Your task to perform on an android device: check battery use Image 0: 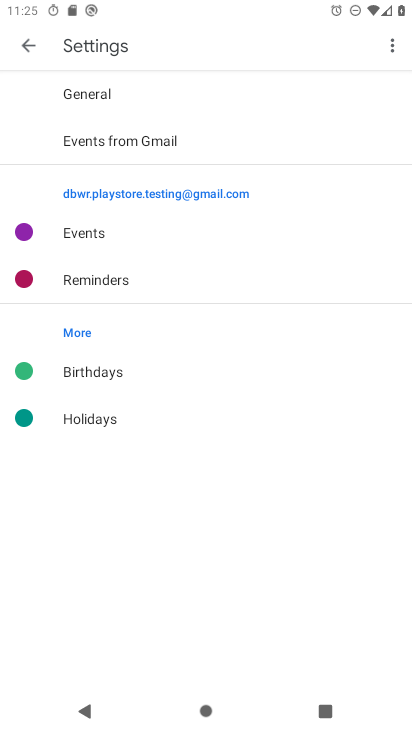
Step 0: press back button
Your task to perform on an android device: check battery use Image 1: 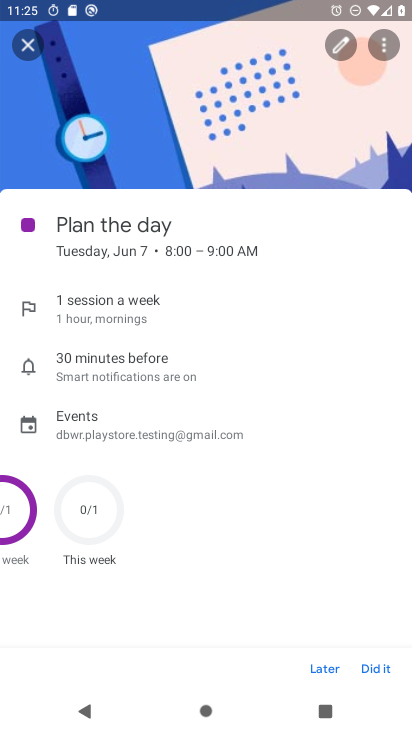
Step 1: press back button
Your task to perform on an android device: check battery use Image 2: 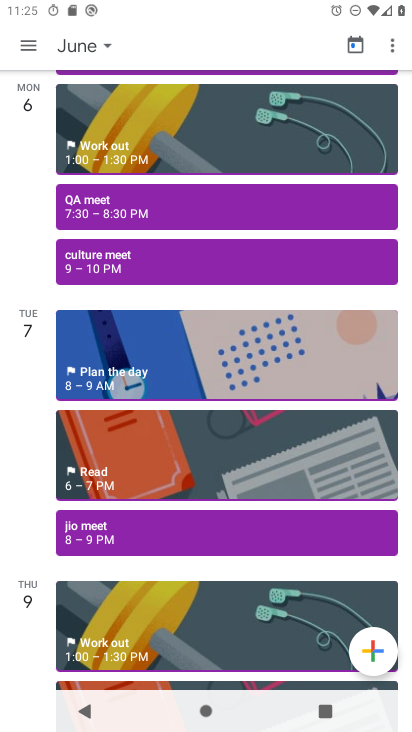
Step 2: press back button
Your task to perform on an android device: check battery use Image 3: 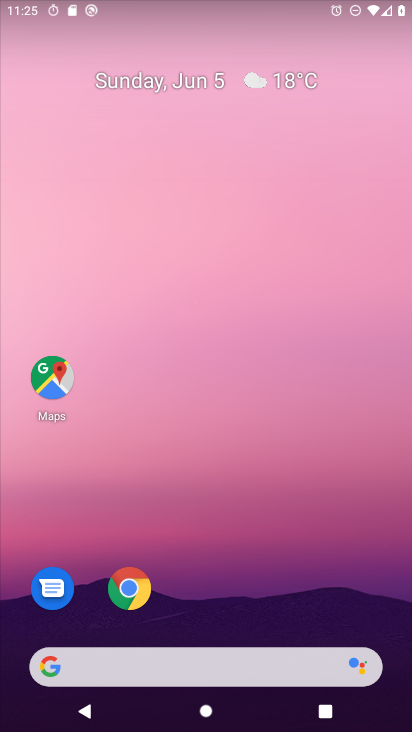
Step 3: drag from (349, 569) to (343, 151)
Your task to perform on an android device: check battery use Image 4: 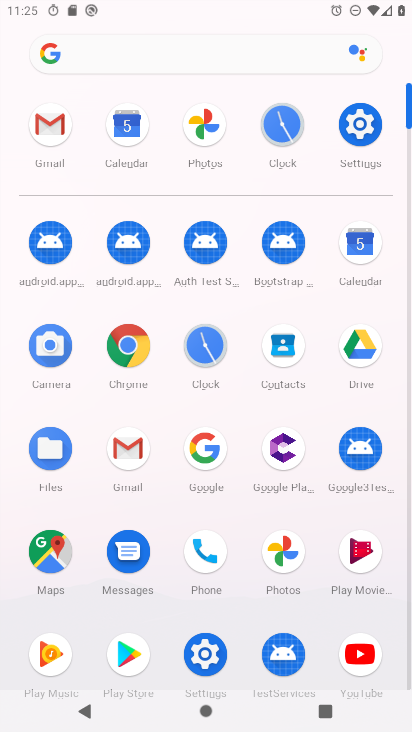
Step 4: click (362, 132)
Your task to perform on an android device: check battery use Image 5: 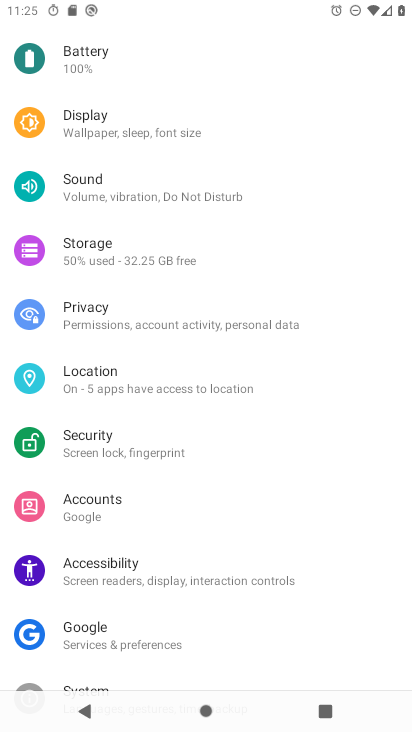
Step 5: drag from (344, 251) to (353, 370)
Your task to perform on an android device: check battery use Image 6: 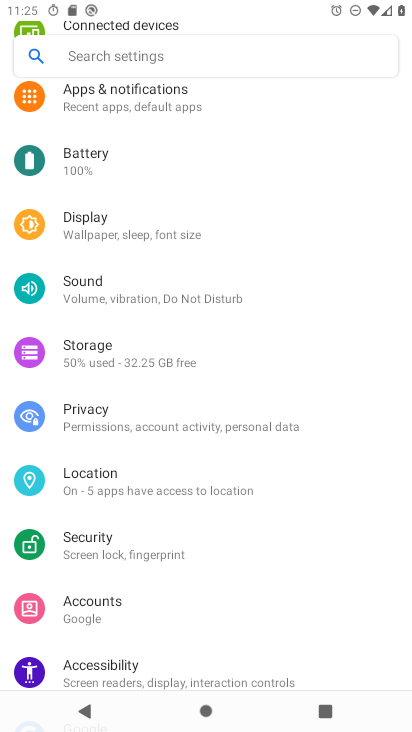
Step 6: drag from (350, 241) to (350, 354)
Your task to perform on an android device: check battery use Image 7: 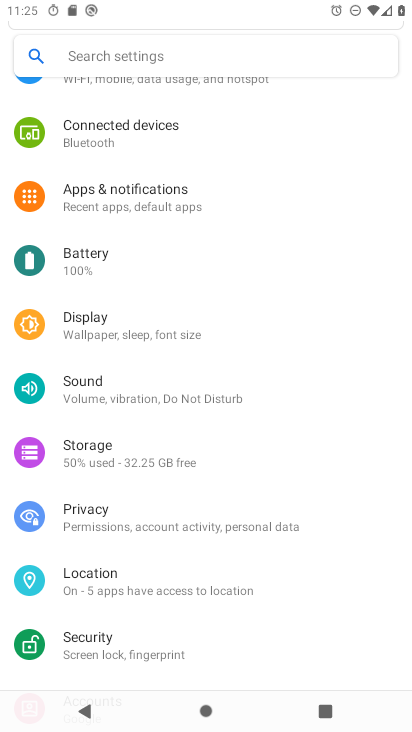
Step 7: drag from (332, 187) to (330, 354)
Your task to perform on an android device: check battery use Image 8: 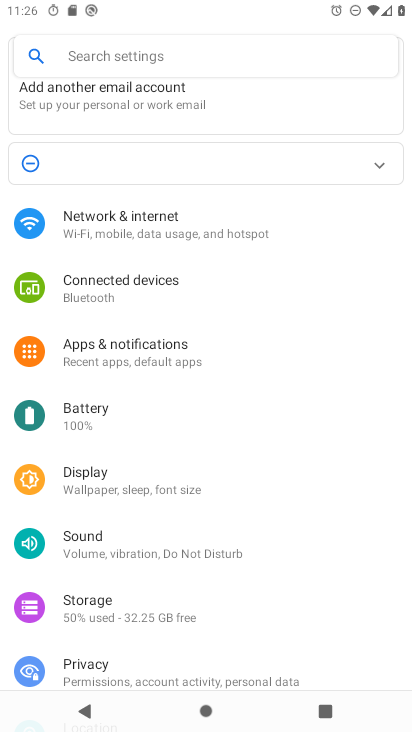
Step 8: click (154, 441)
Your task to perform on an android device: check battery use Image 9: 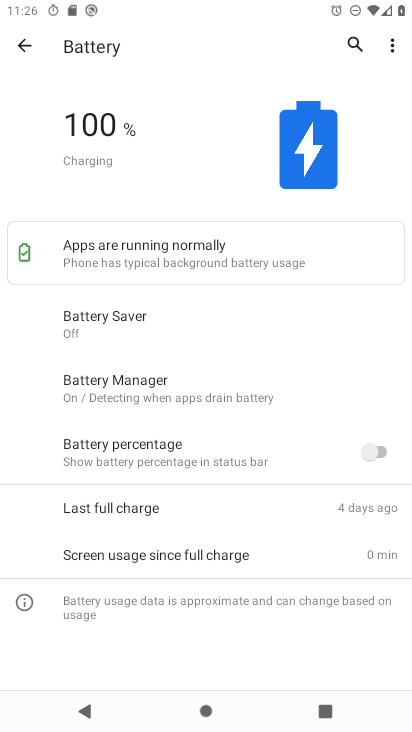
Step 9: click (390, 52)
Your task to perform on an android device: check battery use Image 10: 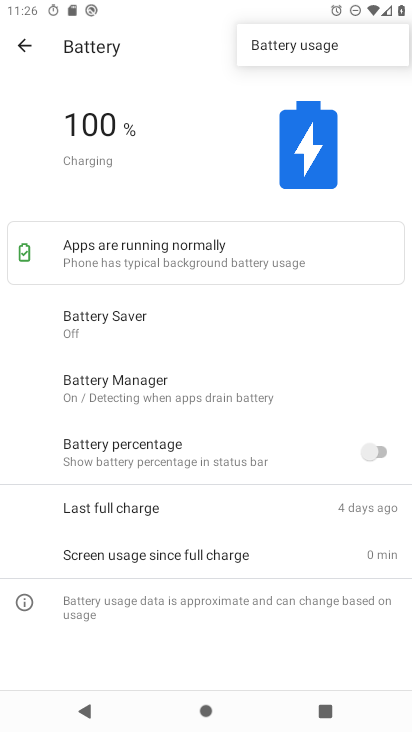
Step 10: click (300, 53)
Your task to perform on an android device: check battery use Image 11: 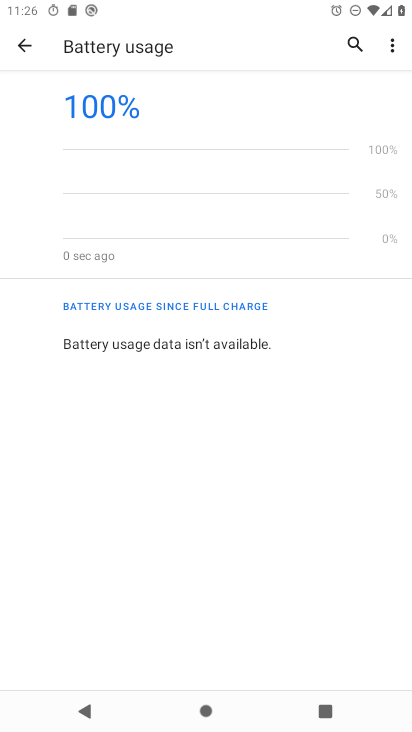
Step 11: task complete